Your task to perform on an android device: Show me popular videos on Youtube Image 0: 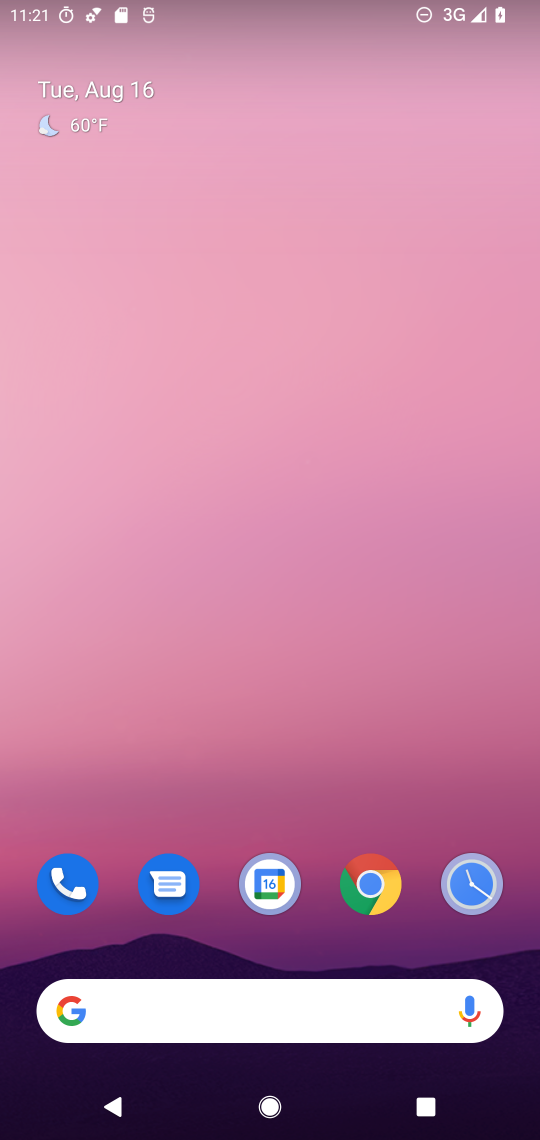
Step 0: drag from (239, 846) to (260, 186)
Your task to perform on an android device: Show me popular videos on Youtube Image 1: 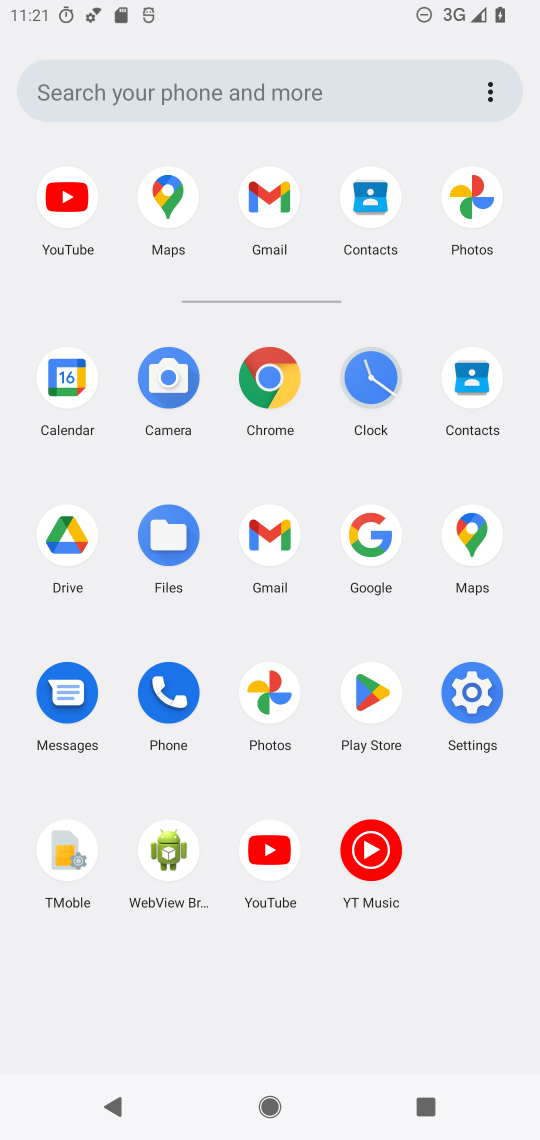
Step 1: click (260, 851)
Your task to perform on an android device: Show me popular videos on Youtube Image 2: 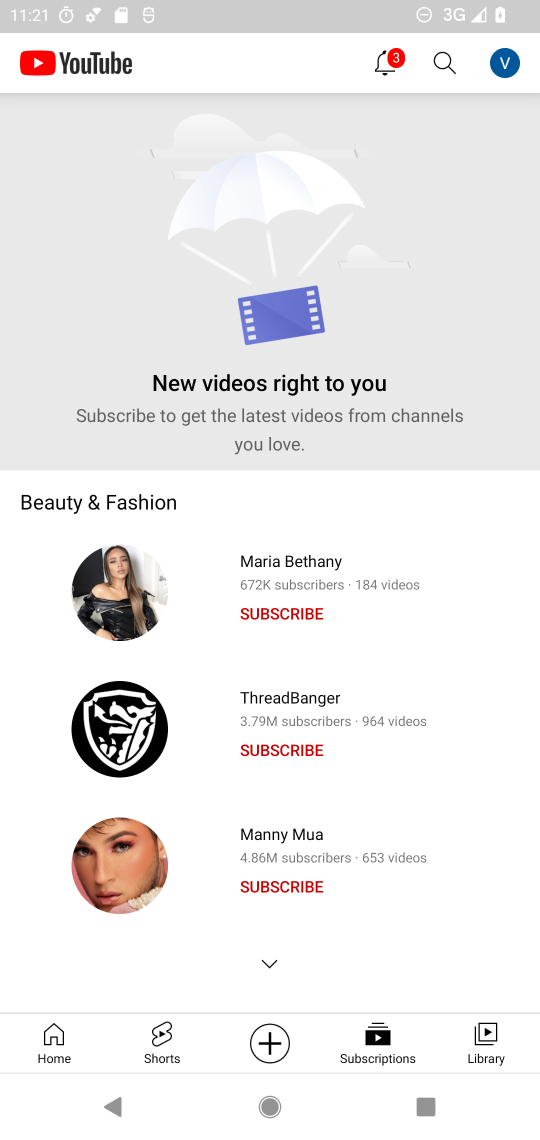
Step 2: click (69, 1042)
Your task to perform on an android device: Show me popular videos on Youtube Image 3: 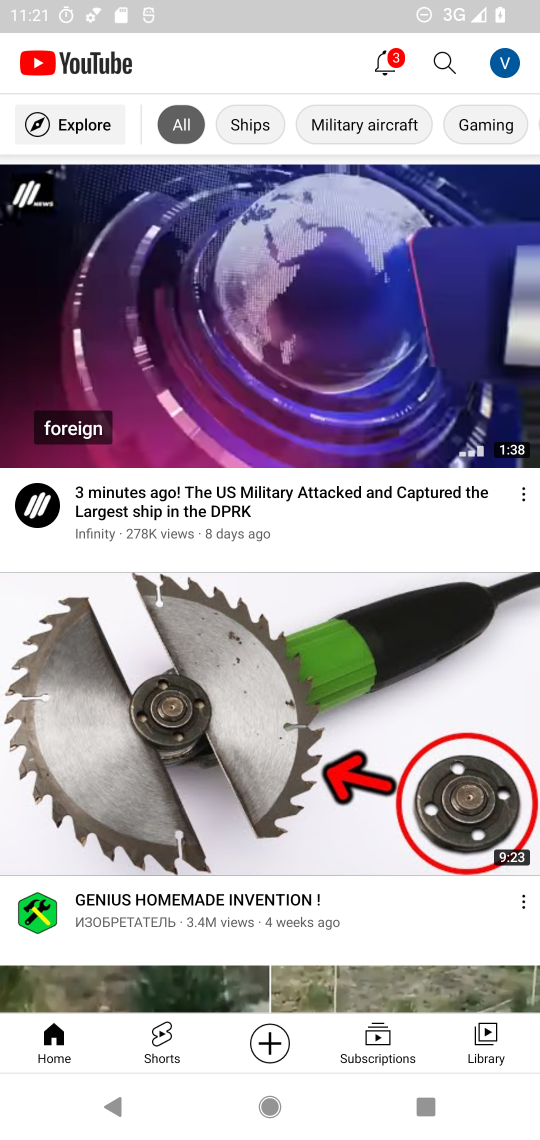
Step 3: task complete